Your task to perform on an android device: Open Google Image 0: 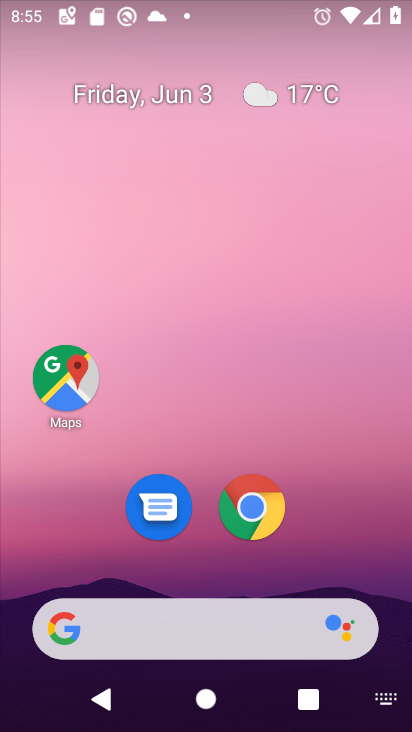
Step 0: drag from (367, 548) to (159, 15)
Your task to perform on an android device: Open Google Image 1: 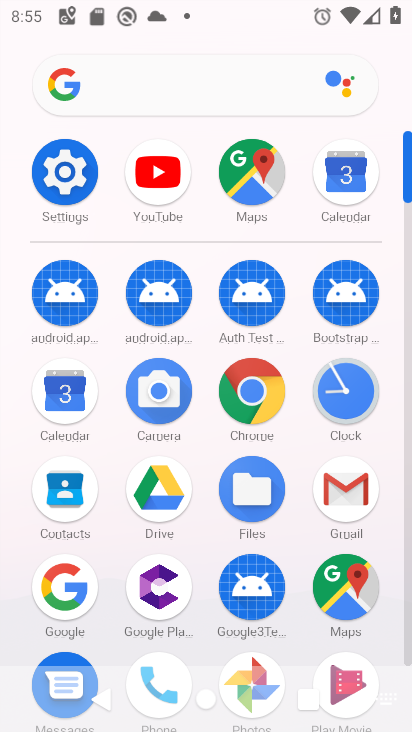
Step 1: click (73, 569)
Your task to perform on an android device: Open Google Image 2: 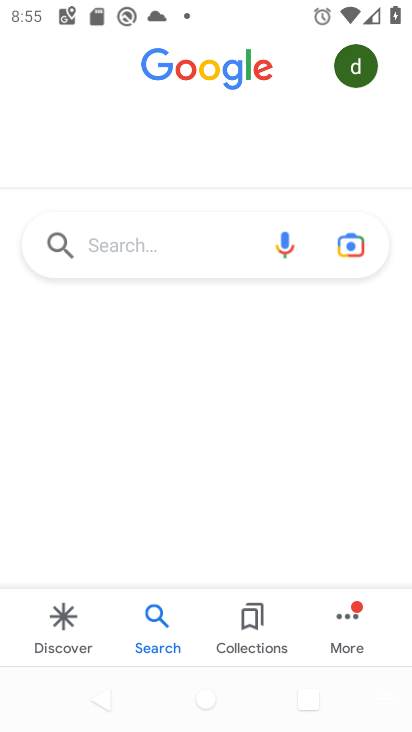
Step 2: task complete